Your task to perform on an android device: toggle location history Image 0: 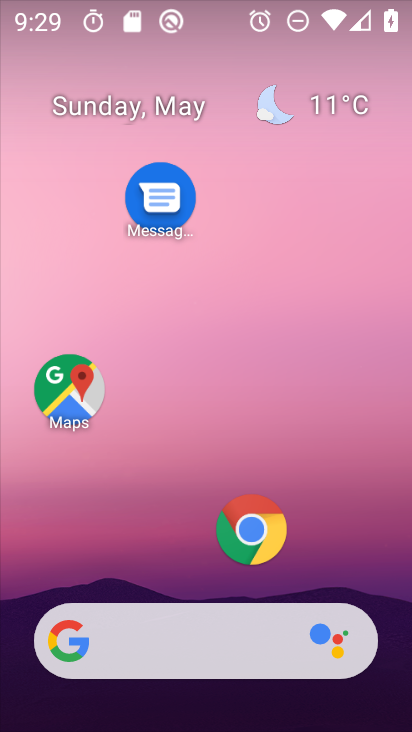
Step 0: drag from (194, 567) to (263, 163)
Your task to perform on an android device: toggle location history Image 1: 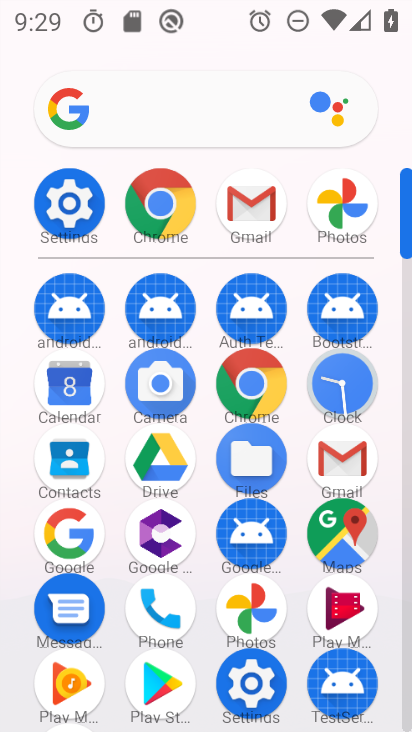
Step 1: click (252, 675)
Your task to perform on an android device: toggle location history Image 2: 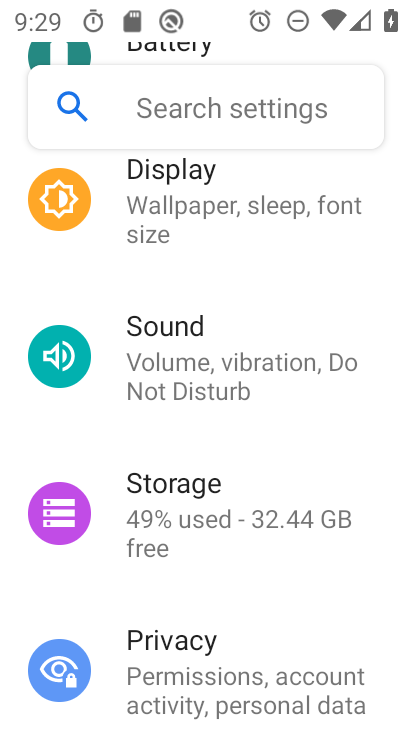
Step 2: drag from (240, 659) to (290, 245)
Your task to perform on an android device: toggle location history Image 3: 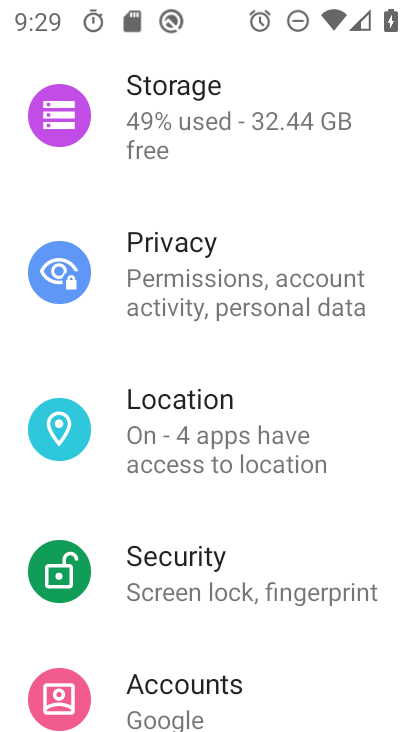
Step 3: click (245, 415)
Your task to perform on an android device: toggle location history Image 4: 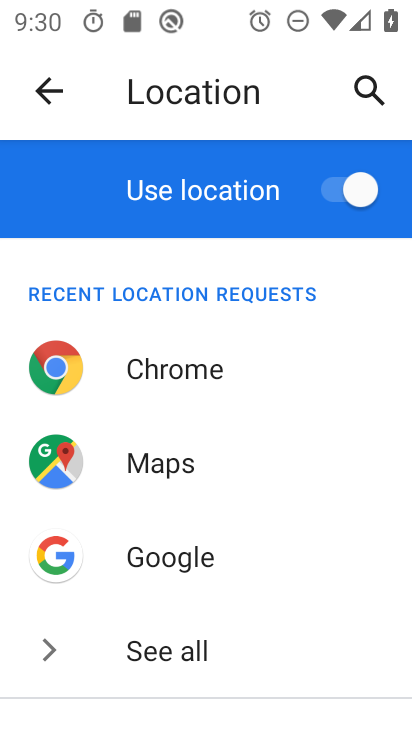
Step 4: drag from (206, 608) to (264, 199)
Your task to perform on an android device: toggle location history Image 5: 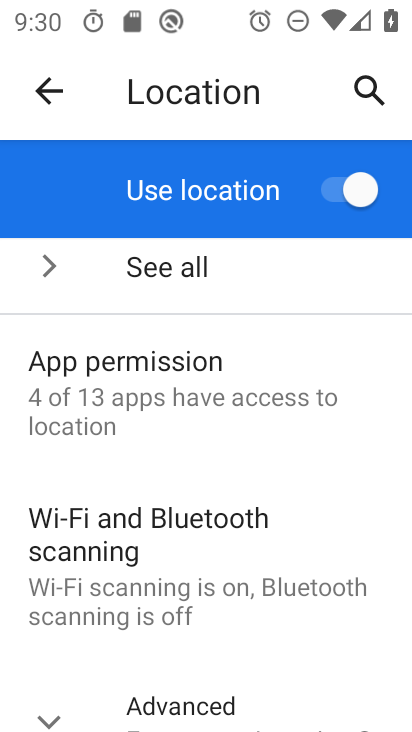
Step 5: drag from (191, 667) to (233, 332)
Your task to perform on an android device: toggle location history Image 6: 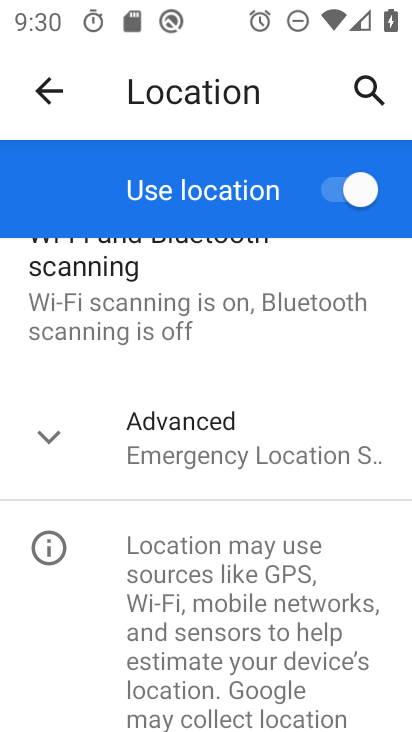
Step 6: click (90, 427)
Your task to perform on an android device: toggle location history Image 7: 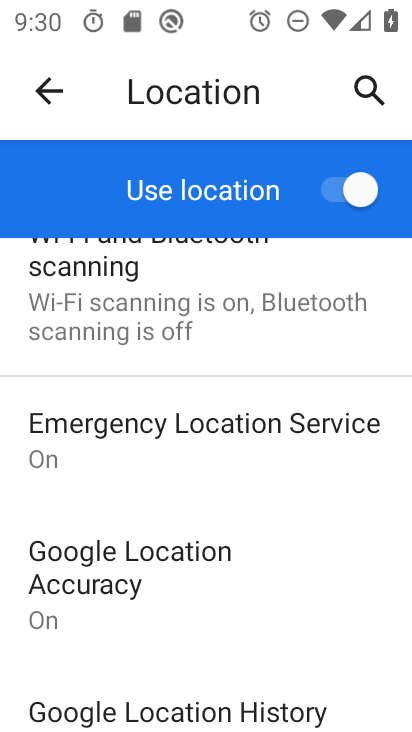
Step 7: click (252, 710)
Your task to perform on an android device: toggle location history Image 8: 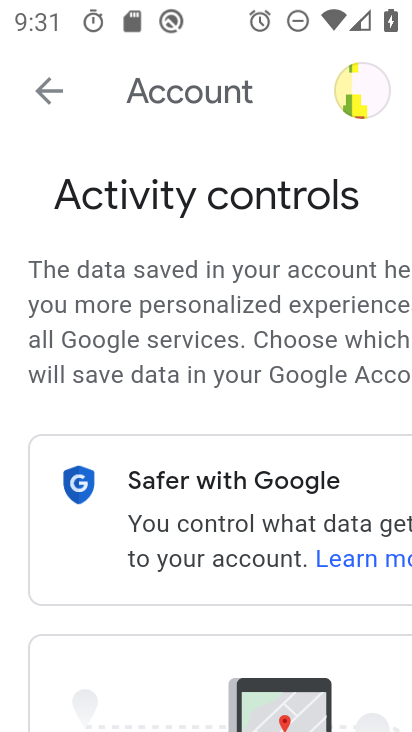
Step 8: task complete